Your task to perform on an android device: Open maps Image 0: 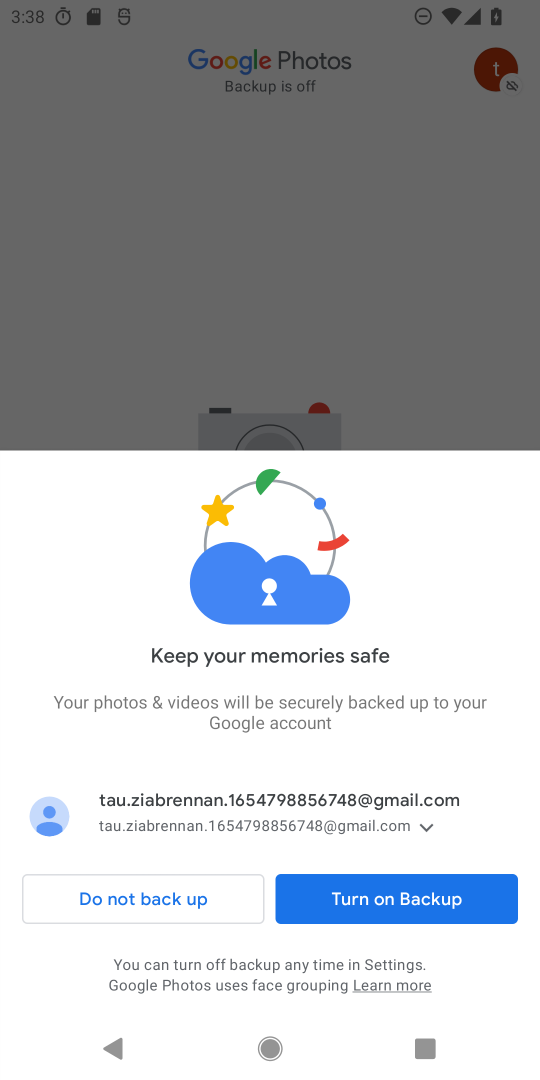
Step 0: press home button
Your task to perform on an android device: Open maps Image 1: 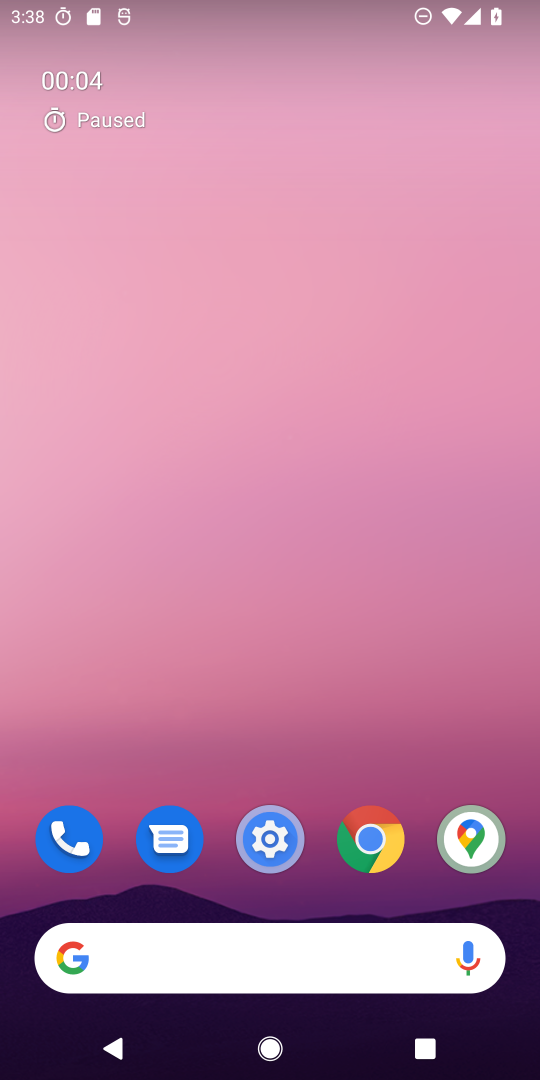
Step 1: click (452, 853)
Your task to perform on an android device: Open maps Image 2: 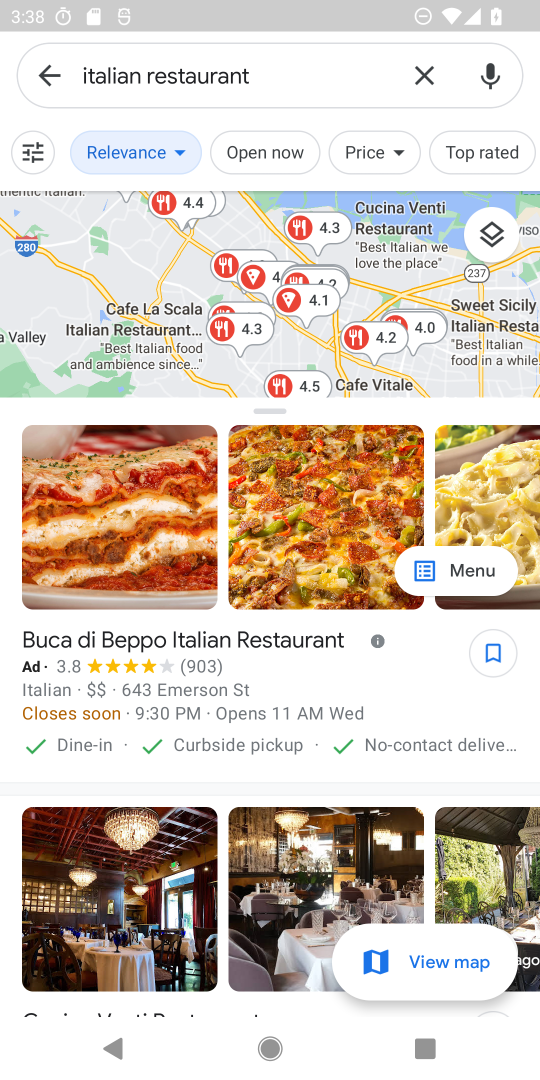
Step 2: click (46, 84)
Your task to perform on an android device: Open maps Image 3: 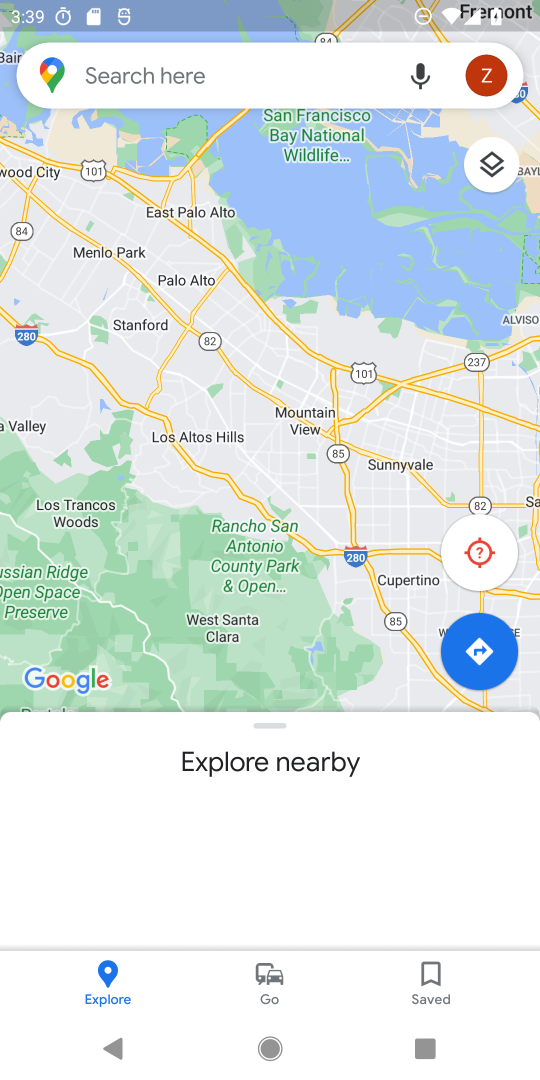
Step 3: task complete